Your task to perform on an android device: find which apps use the phone's location Image 0: 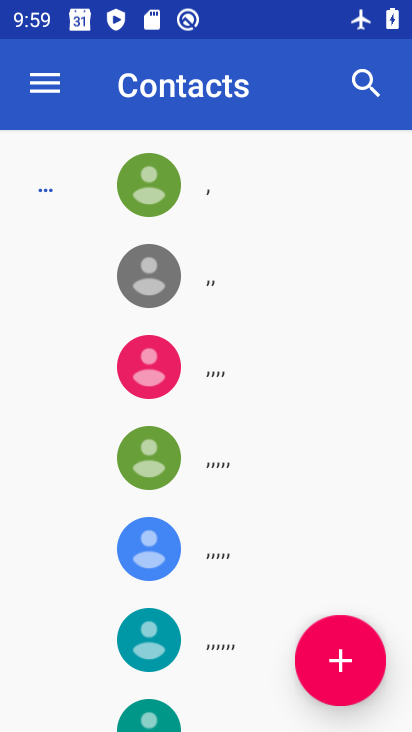
Step 0: press home button
Your task to perform on an android device: find which apps use the phone's location Image 1: 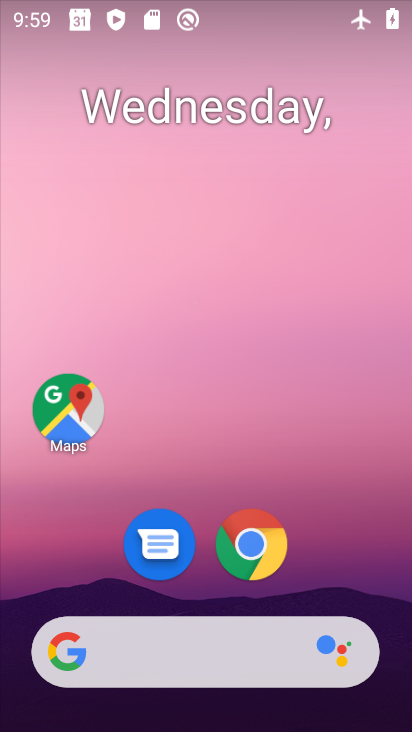
Step 1: drag from (346, 602) to (332, 16)
Your task to perform on an android device: find which apps use the phone's location Image 2: 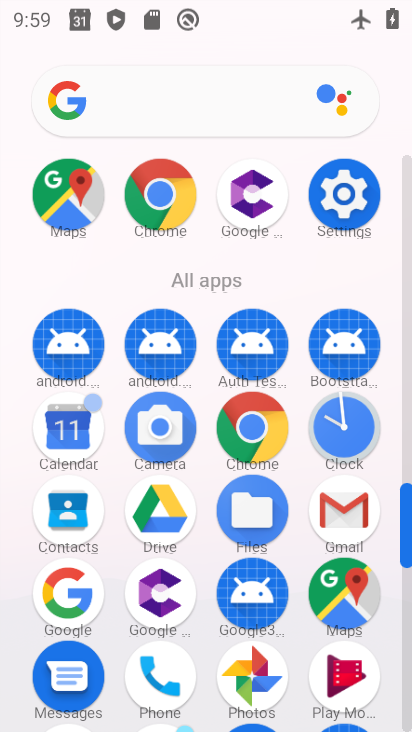
Step 2: click (341, 183)
Your task to perform on an android device: find which apps use the phone's location Image 3: 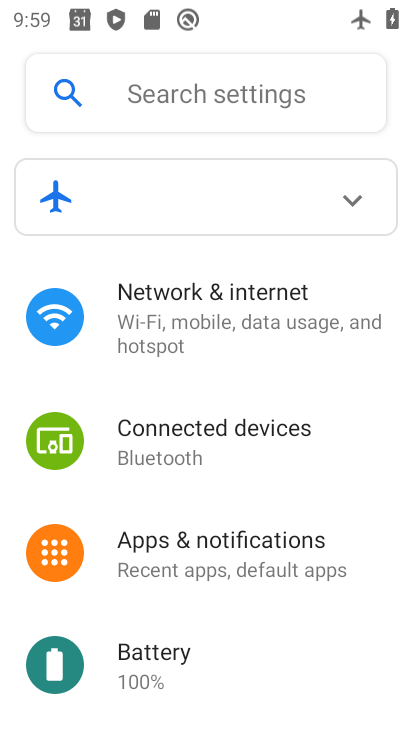
Step 3: drag from (218, 602) to (227, 107)
Your task to perform on an android device: find which apps use the phone's location Image 4: 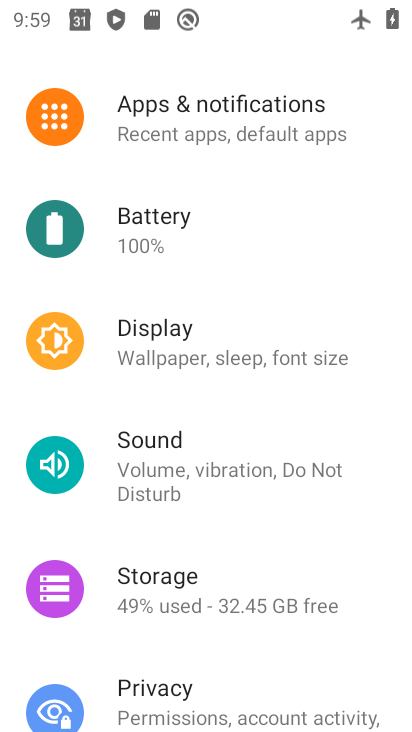
Step 4: drag from (211, 576) to (229, 207)
Your task to perform on an android device: find which apps use the phone's location Image 5: 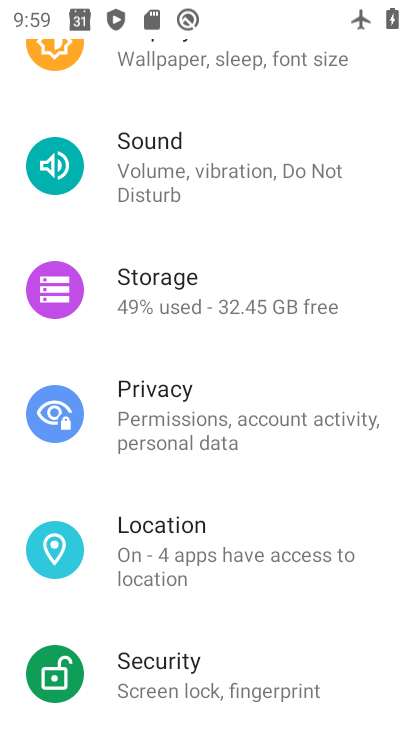
Step 5: click (198, 540)
Your task to perform on an android device: find which apps use the phone's location Image 6: 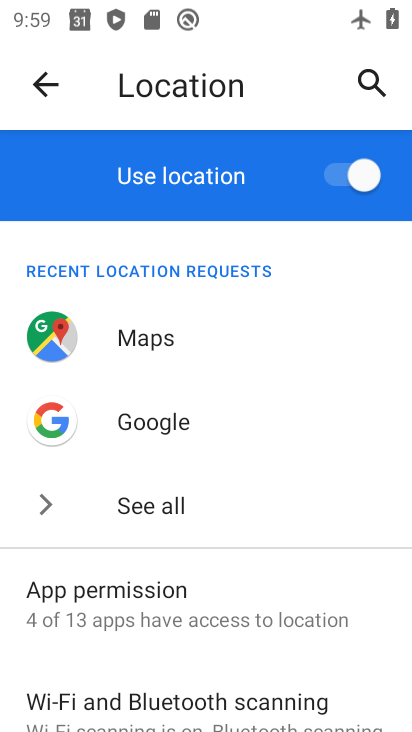
Step 6: click (153, 609)
Your task to perform on an android device: find which apps use the phone's location Image 7: 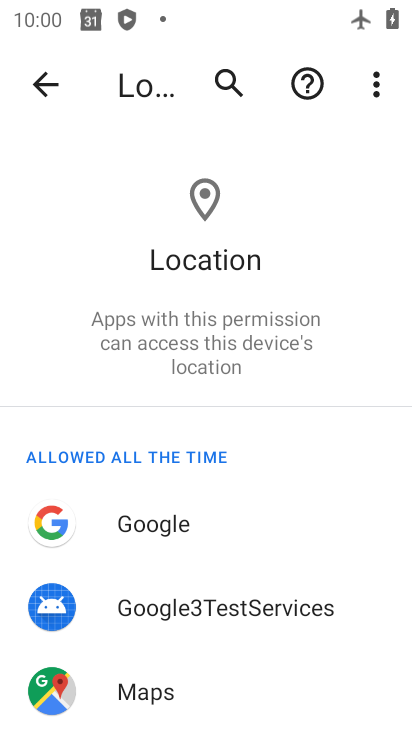
Step 7: task complete